Your task to perform on an android device: Open wifi settings Image 0: 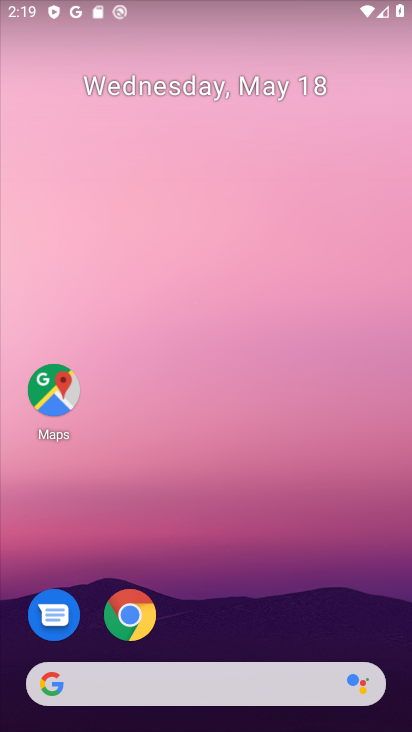
Step 0: drag from (199, 622) to (207, 347)
Your task to perform on an android device: Open wifi settings Image 1: 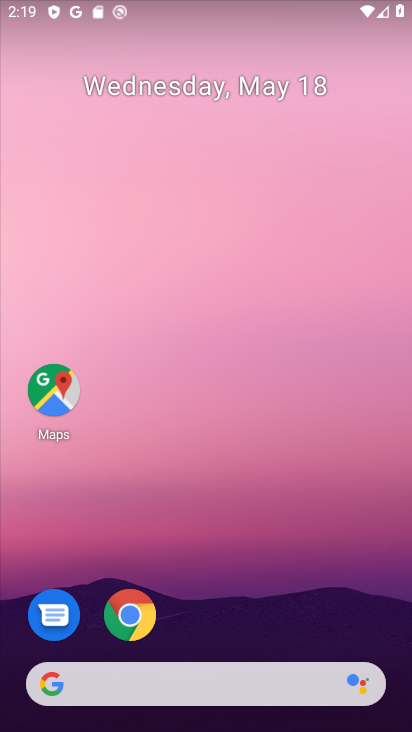
Step 1: drag from (201, 633) to (238, 260)
Your task to perform on an android device: Open wifi settings Image 2: 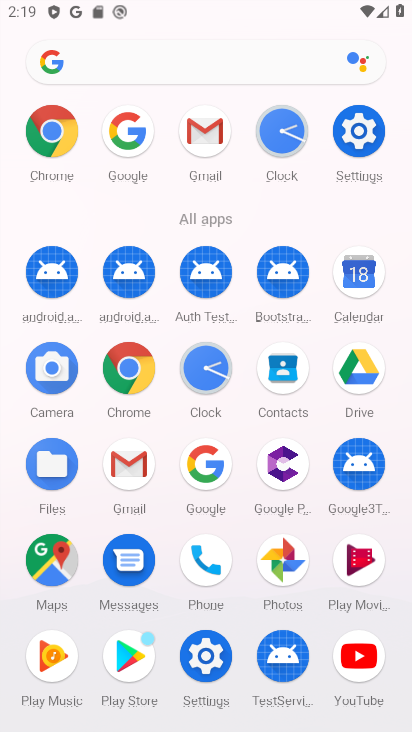
Step 2: click (358, 130)
Your task to perform on an android device: Open wifi settings Image 3: 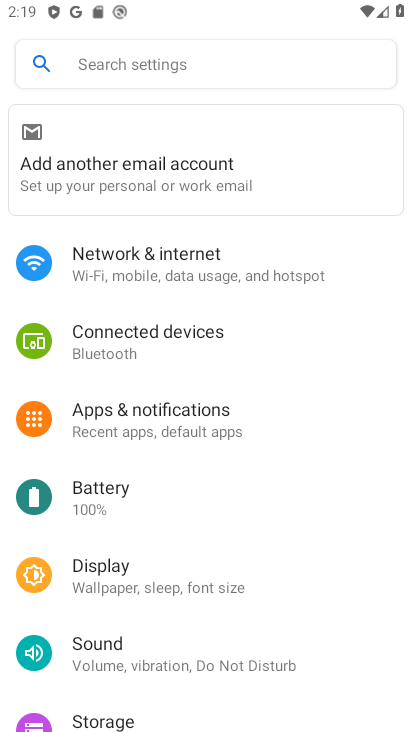
Step 3: click (171, 275)
Your task to perform on an android device: Open wifi settings Image 4: 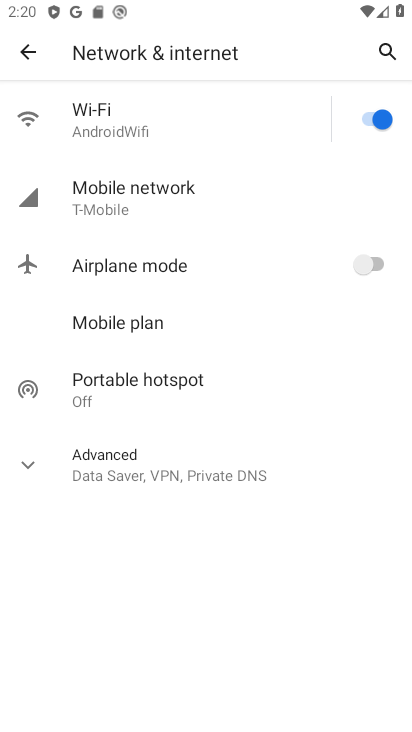
Step 4: click (118, 133)
Your task to perform on an android device: Open wifi settings Image 5: 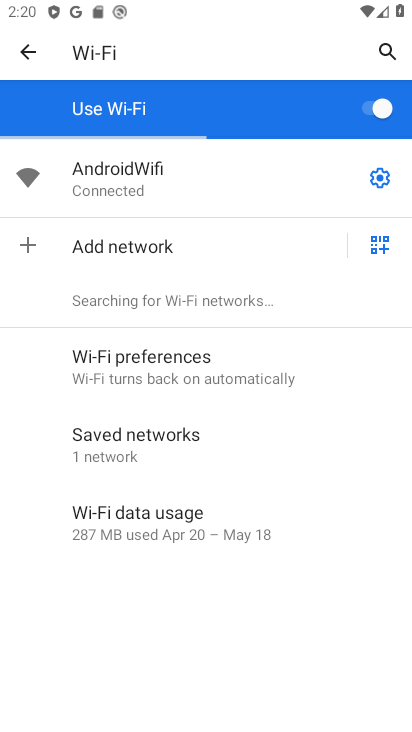
Step 5: task complete